Your task to perform on an android device: check out phone information Image 0: 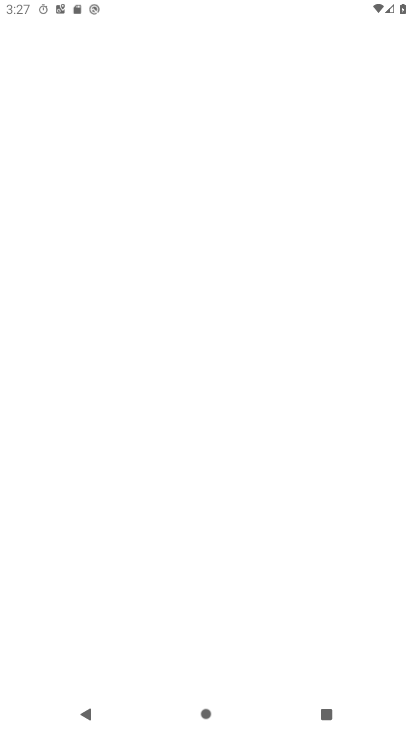
Step 0: click (129, 609)
Your task to perform on an android device: check out phone information Image 1: 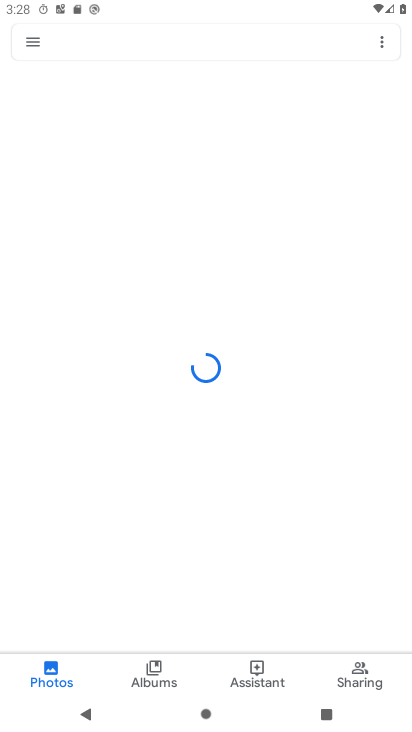
Step 1: press home button
Your task to perform on an android device: check out phone information Image 2: 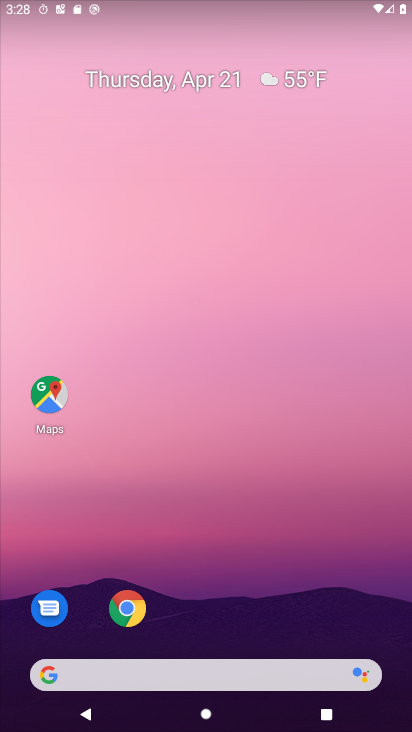
Step 2: drag from (222, 491) to (218, 0)
Your task to perform on an android device: check out phone information Image 3: 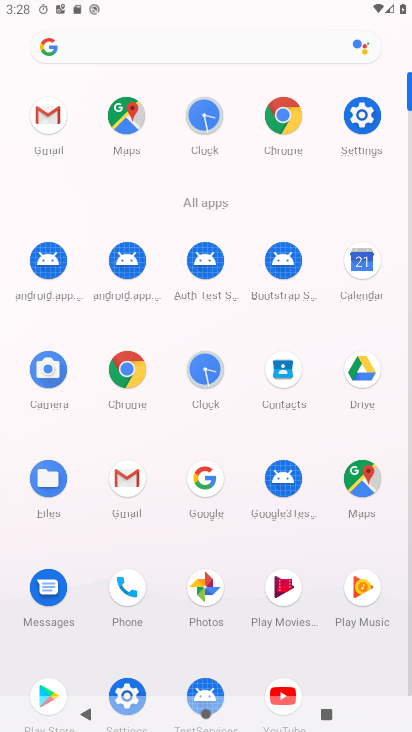
Step 3: click (129, 594)
Your task to perform on an android device: check out phone information Image 4: 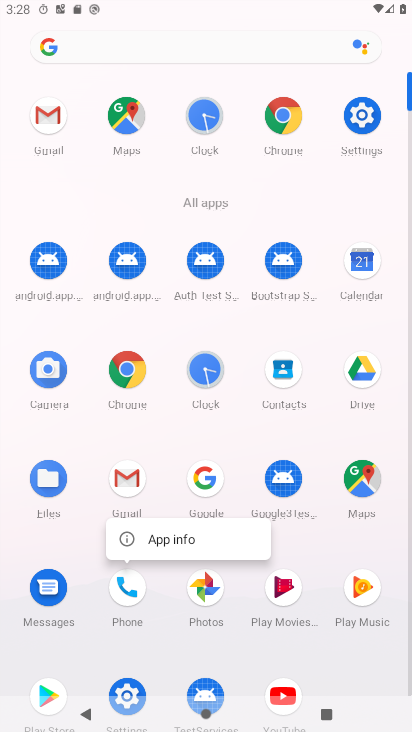
Step 4: click (201, 546)
Your task to perform on an android device: check out phone information Image 5: 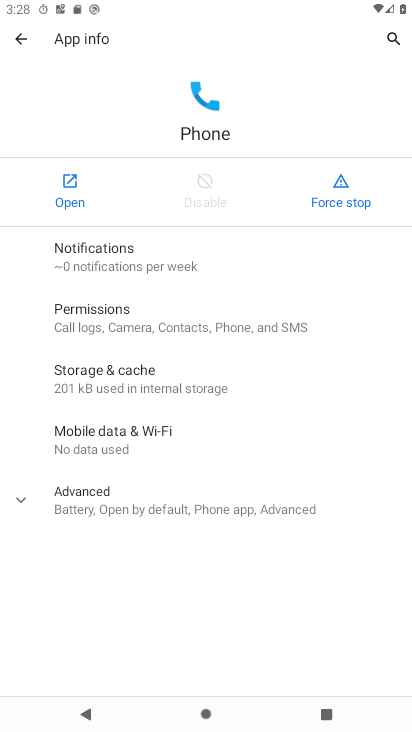
Step 5: task complete